Your task to perform on an android device: Go to ESPN.com Image 0: 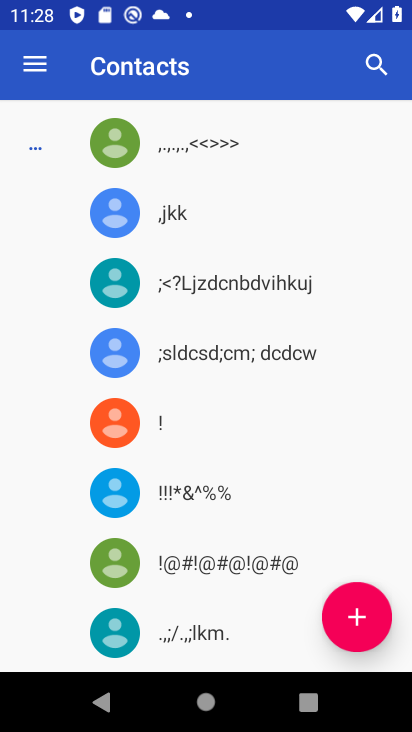
Step 0: press back button
Your task to perform on an android device: Go to ESPN.com Image 1: 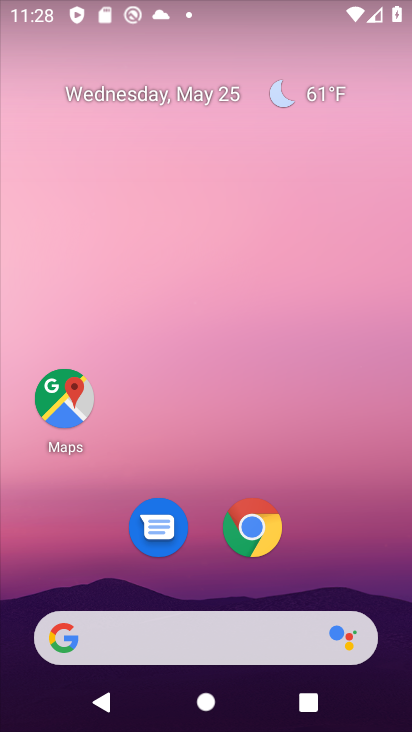
Step 1: drag from (238, 691) to (124, 247)
Your task to perform on an android device: Go to ESPN.com Image 2: 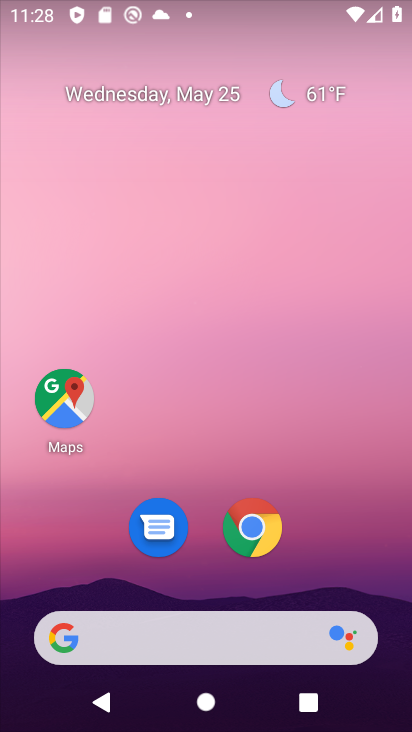
Step 2: drag from (270, 565) to (233, 311)
Your task to perform on an android device: Go to ESPN.com Image 3: 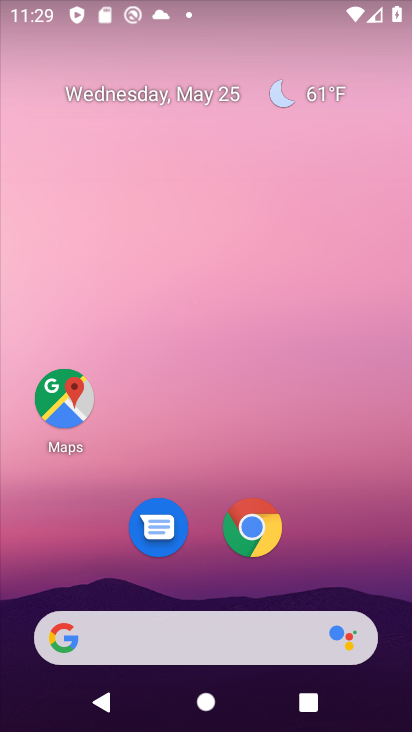
Step 3: drag from (274, 672) to (231, 340)
Your task to perform on an android device: Go to ESPN.com Image 4: 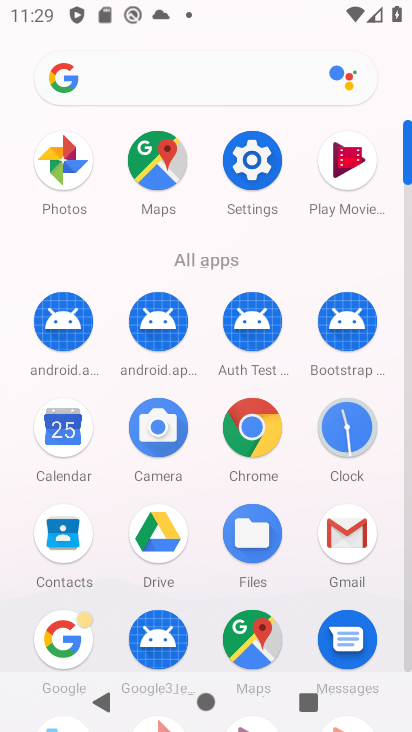
Step 4: click (257, 412)
Your task to perform on an android device: Go to ESPN.com Image 5: 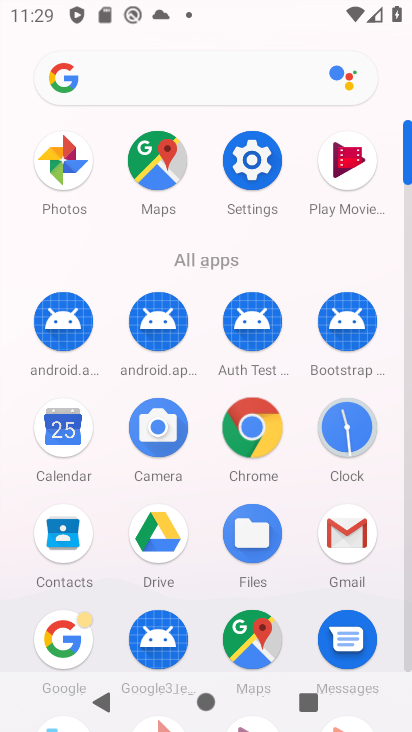
Step 5: drag from (259, 417) to (273, 465)
Your task to perform on an android device: Go to ESPN.com Image 6: 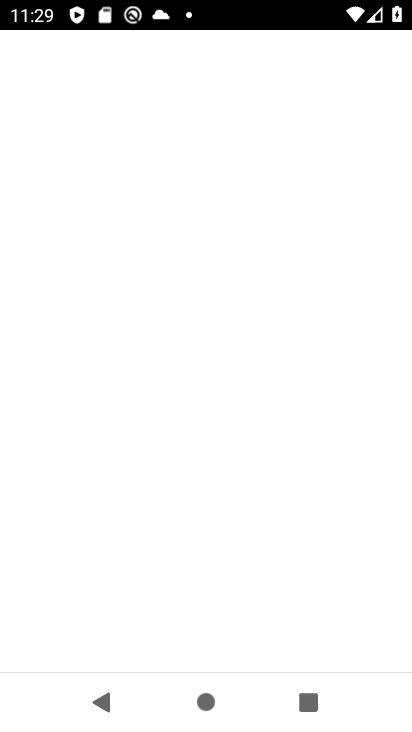
Step 6: click (269, 436)
Your task to perform on an android device: Go to ESPN.com Image 7: 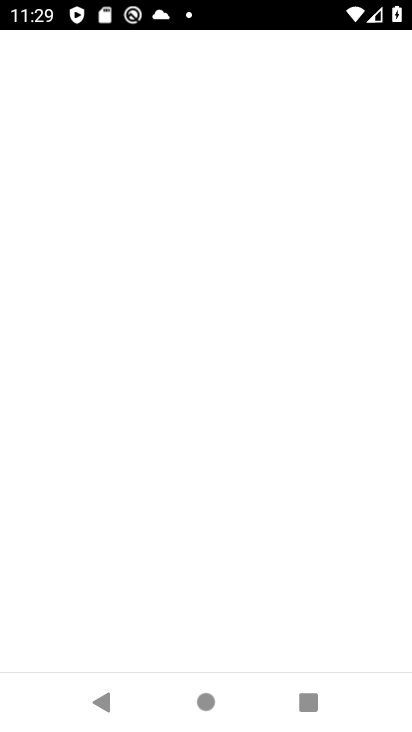
Step 7: click (239, 384)
Your task to perform on an android device: Go to ESPN.com Image 8: 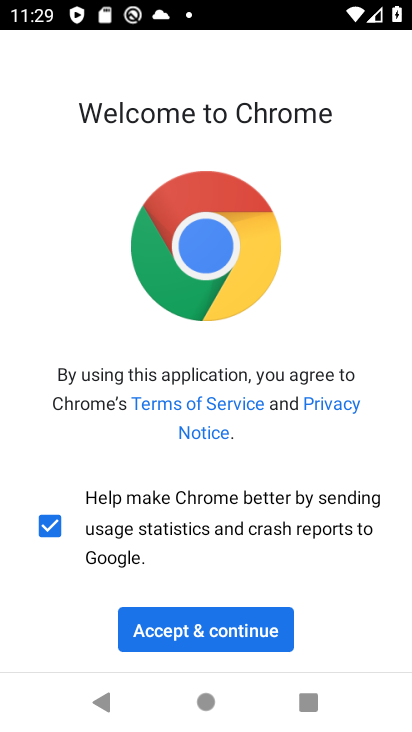
Step 8: click (211, 625)
Your task to perform on an android device: Go to ESPN.com Image 9: 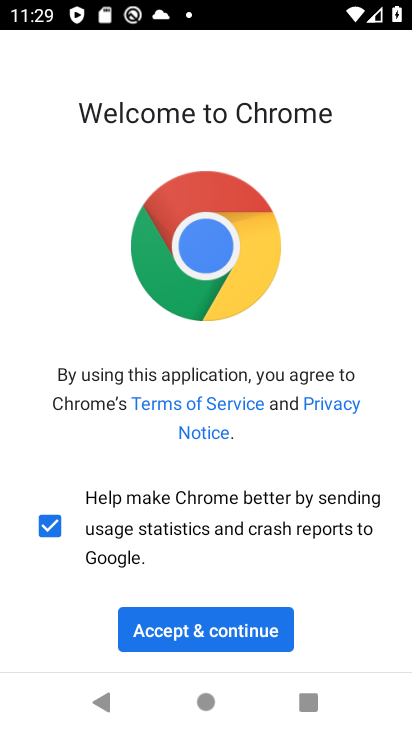
Step 9: click (211, 625)
Your task to perform on an android device: Go to ESPN.com Image 10: 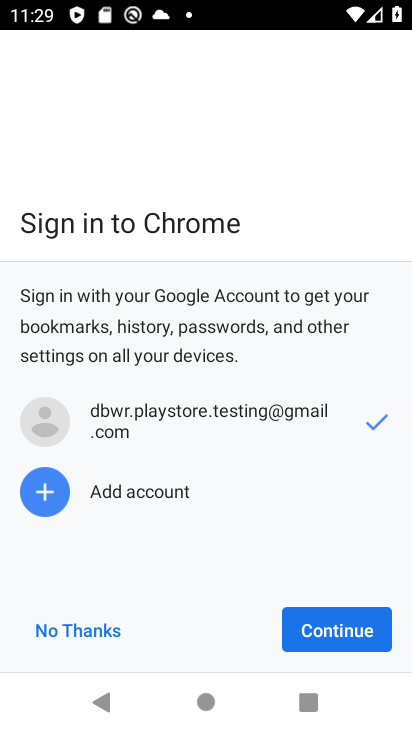
Step 10: click (207, 624)
Your task to perform on an android device: Go to ESPN.com Image 11: 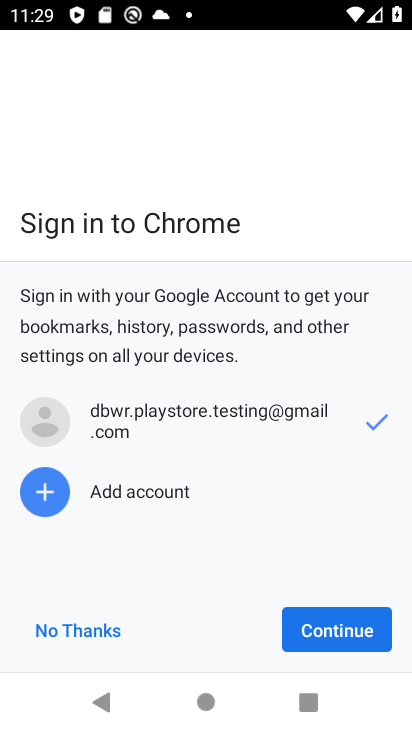
Step 11: click (198, 622)
Your task to perform on an android device: Go to ESPN.com Image 12: 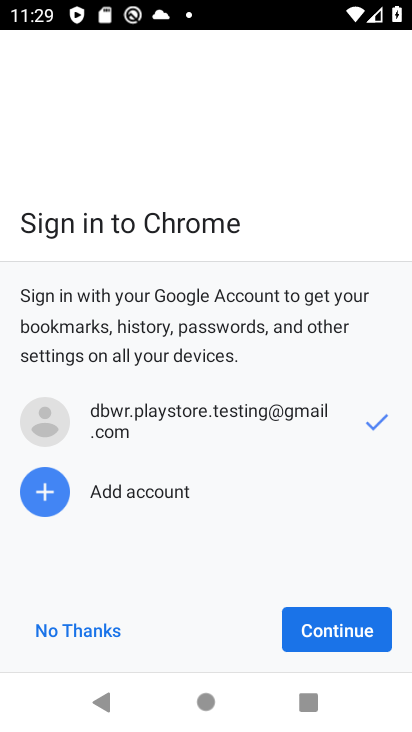
Step 12: click (343, 628)
Your task to perform on an android device: Go to ESPN.com Image 13: 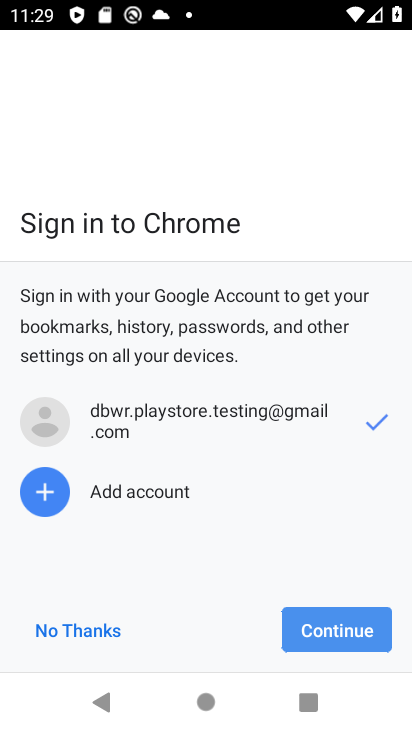
Step 13: click (341, 628)
Your task to perform on an android device: Go to ESPN.com Image 14: 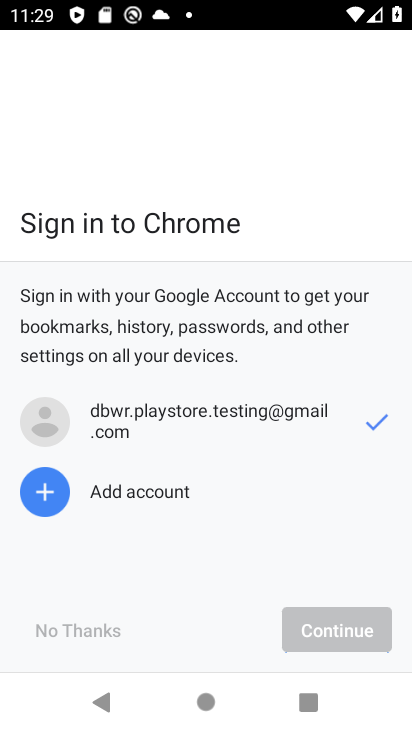
Step 14: click (340, 628)
Your task to perform on an android device: Go to ESPN.com Image 15: 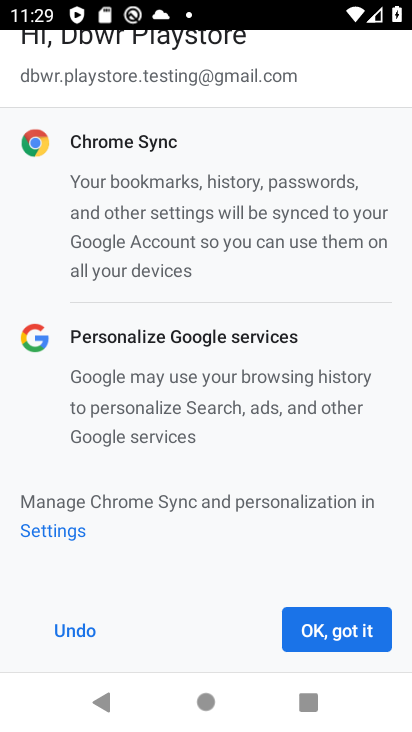
Step 15: click (338, 623)
Your task to perform on an android device: Go to ESPN.com Image 16: 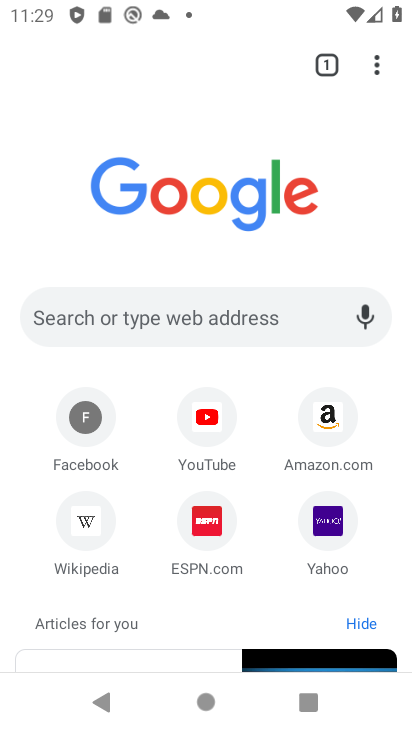
Step 16: click (209, 521)
Your task to perform on an android device: Go to ESPN.com Image 17: 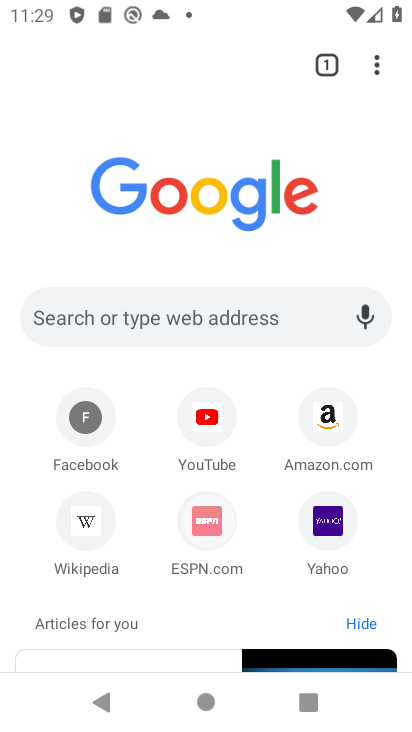
Step 17: click (209, 521)
Your task to perform on an android device: Go to ESPN.com Image 18: 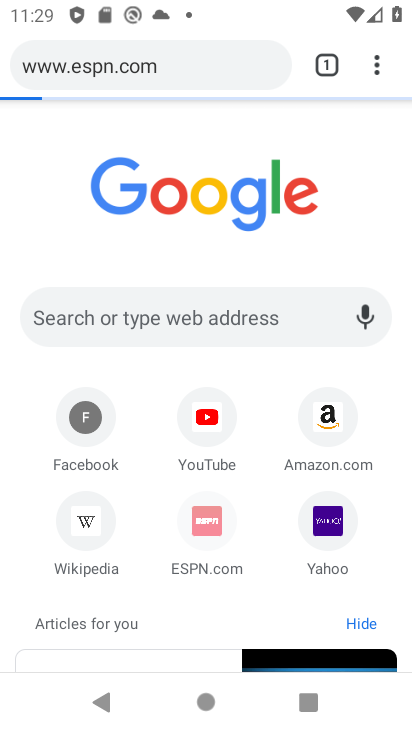
Step 18: click (209, 521)
Your task to perform on an android device: Go to ESPN.com Image 19: 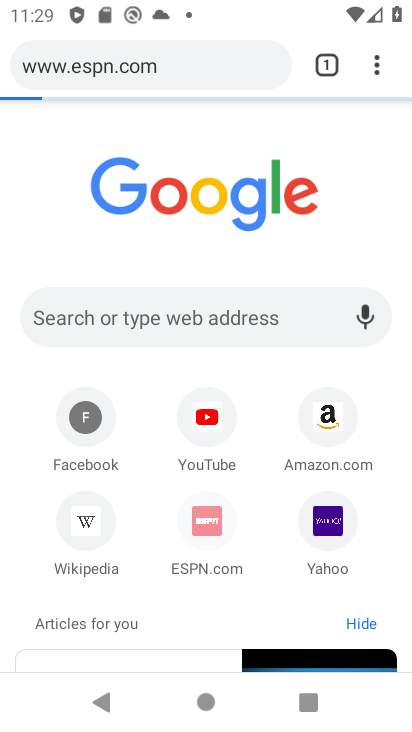
Step 19: click (209, 521)
Your task to perform on an android device: Go to ESPN.com Image 20: 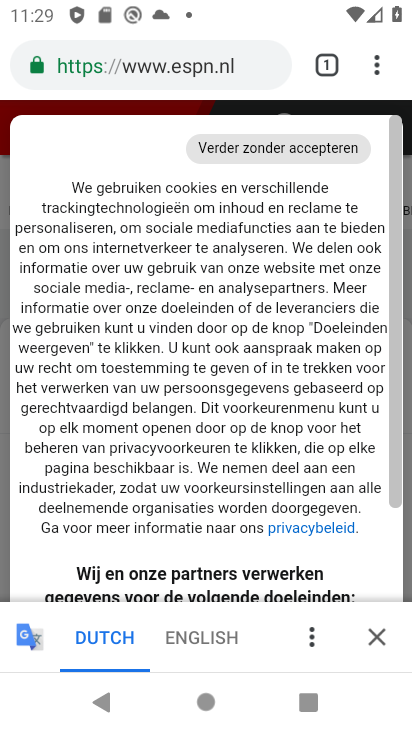
Step 20: task complete